Your task to perform on an android device: turn notification dots on Image 0: 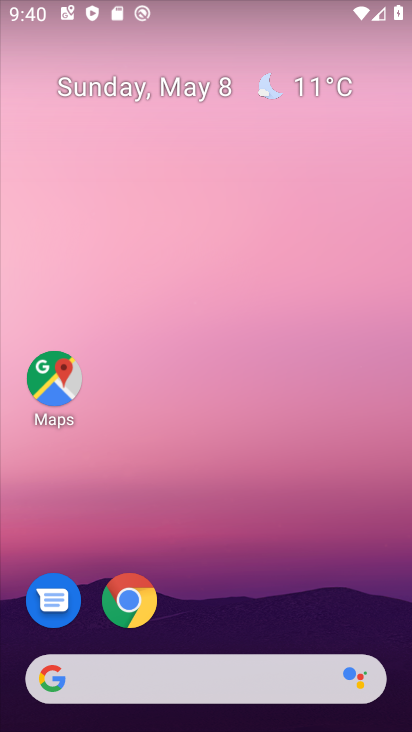
Step 0: drag from (300, 543) to (235, 42)
Your task to perform on an android device: turn notification dots on Image 1: 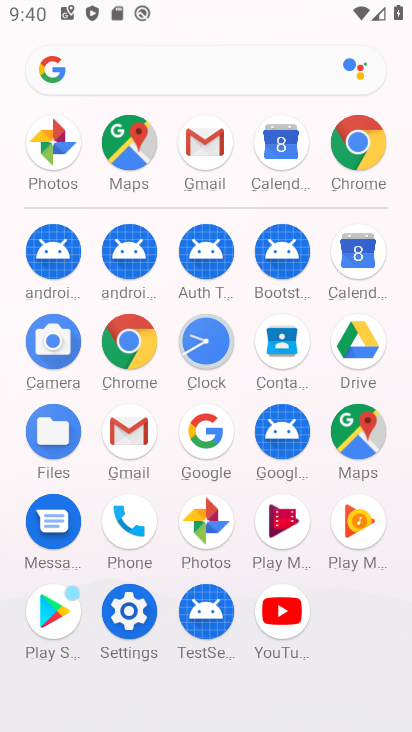
Step 1: click (132, 610)
Your task to perform on an android device: turn notification dots on Image 2: 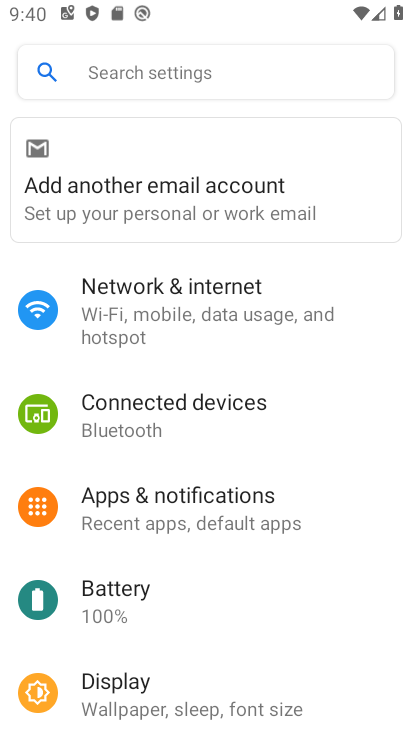
Step 2: click (201, 503)
Your task to perform on an android device: turn notification dots on Image 3: 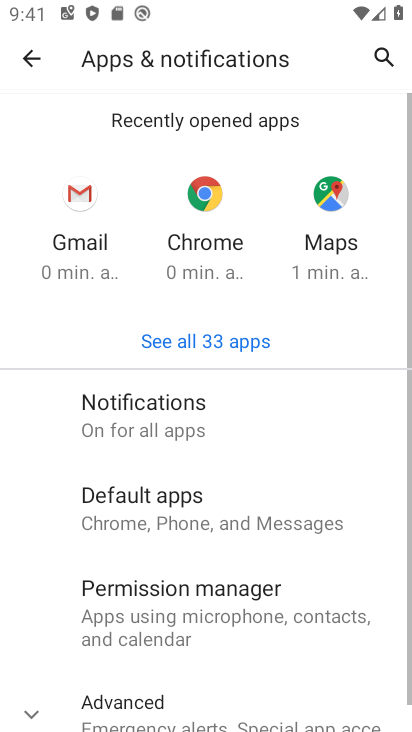
Step 3: click (203, 425)
Your task to perform on an android device: turn notification dots on Image 4: 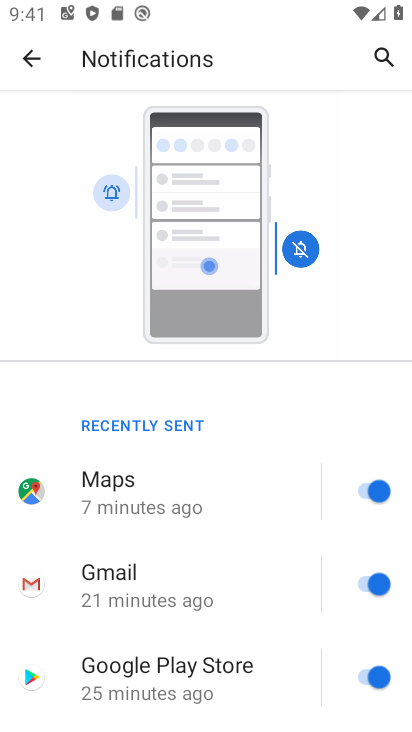
Step 4: drag from (249, 591) to (246, 58)
Your task to perform on an android device: turn notification dots on Image 5: 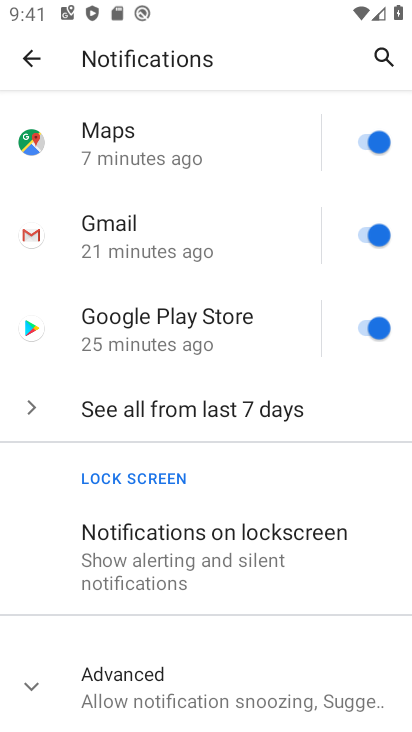
Step 5: click (61, 691)
Your task to perform on an android device: turn notification dots on Image 6: 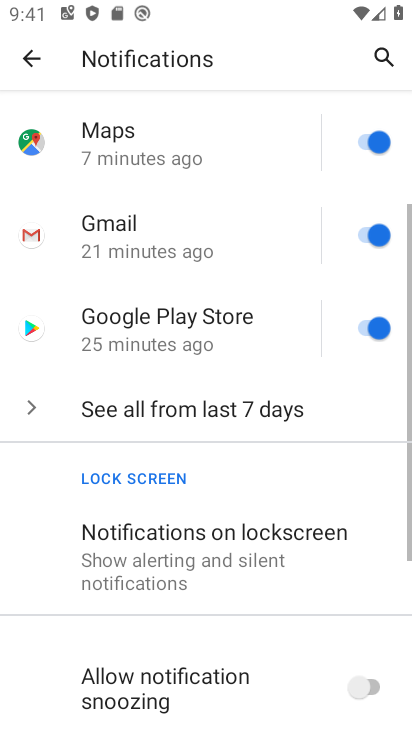
Step 6: task complete